Your task to perform on an android device: Open the map Image 0: 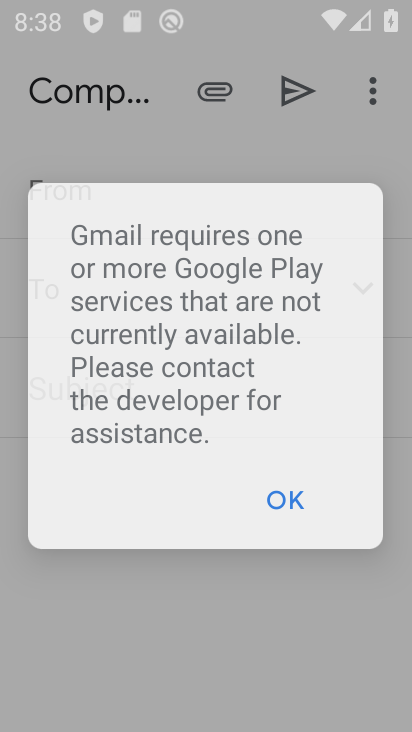
Step 0: press home button
Your task to perform on an android device: Open the map Image 1: 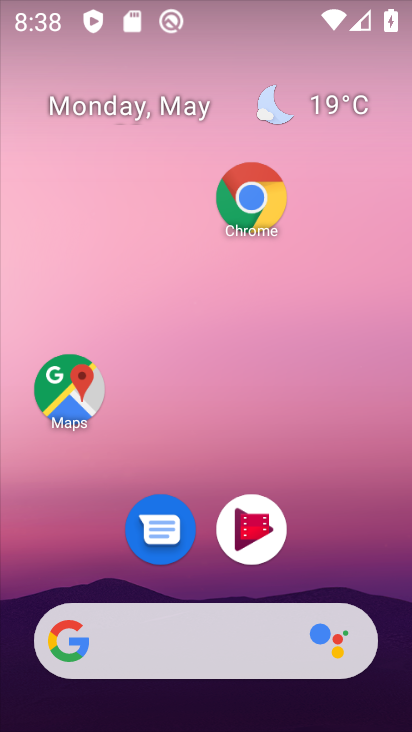
Step 1: click (77, 391)
Your task to perform on an android device: Open the map Image 2: 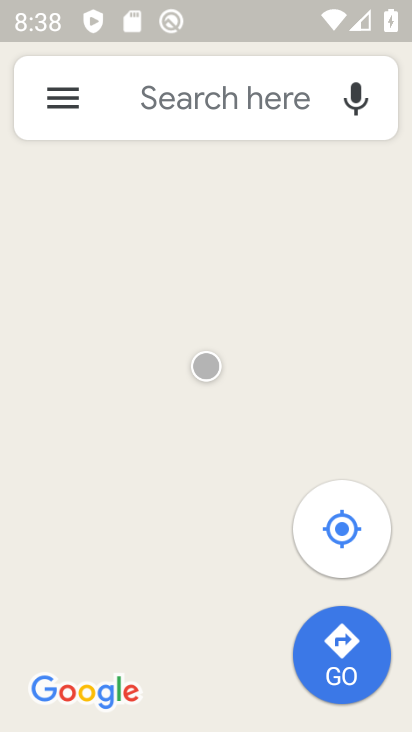
Step 2: task complete